Your task to perform on an android device: Open Chrome and go to settings Image 0: 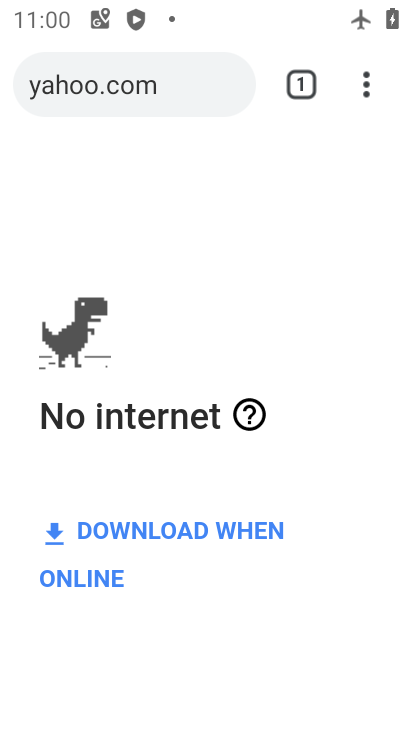
Step 0: press home button
Your task to perform on an android device: Open Chrome and go to settings Image 1: 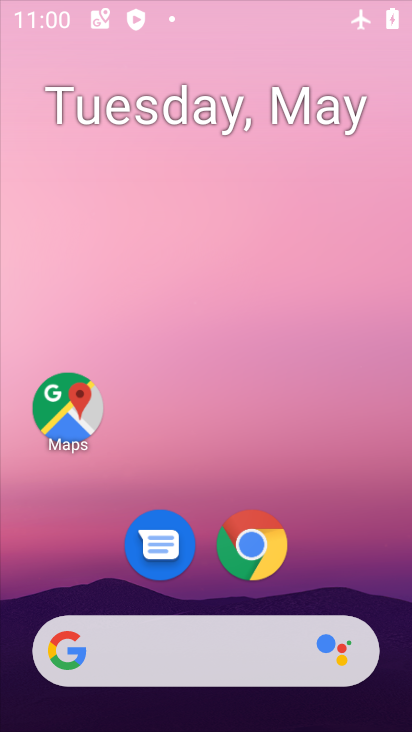
Step 1: drag from (181, 647) to (252, 132)
Your task to perform on an android device: Open Chrome and go to settings Image 2: 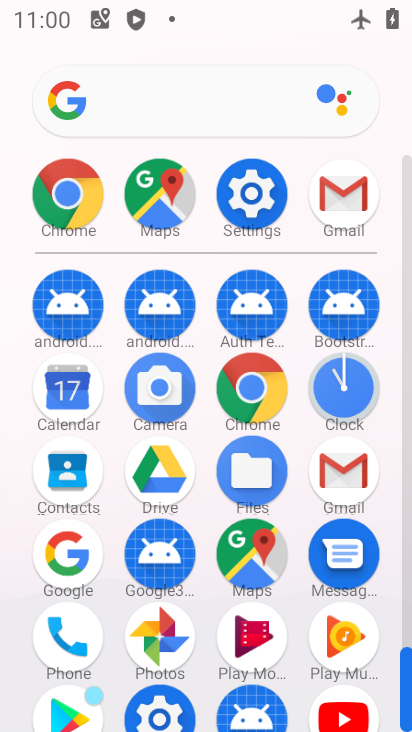
Step 2: click (77, 208)
Your task to perform on an android device: Open Chrome and go to settings Image 3: 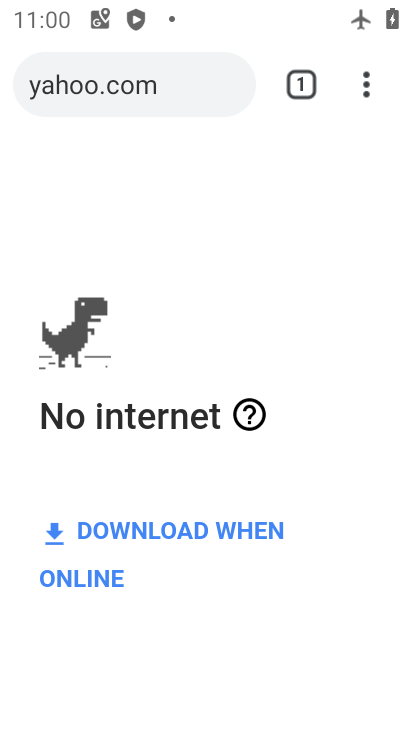
Step 3: click (349, 65)
Your task to perform on an android device: Open Chrome and go to settings Image 4: 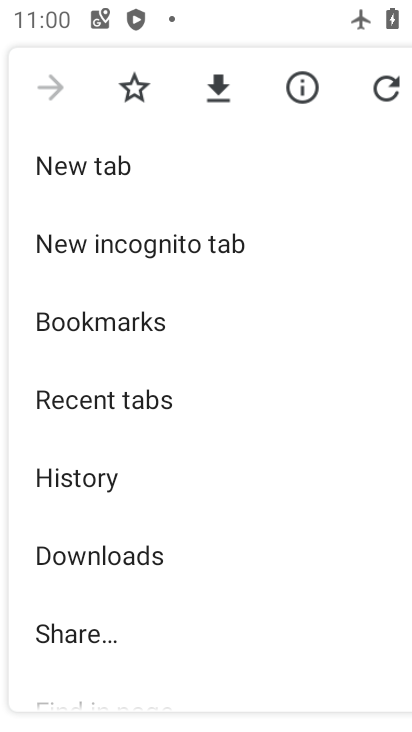
Step 4: drag from (117, 450) to (103, 136)
Your task to perform on an android device: Open Chrome and go to settings Image 5: 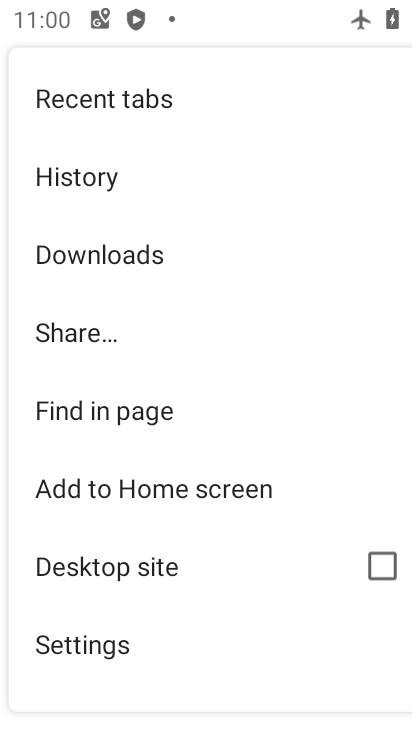
Step 5: click (139, 645)
Your task to perform on an android device: Open Chrome and go to settings Image 6: 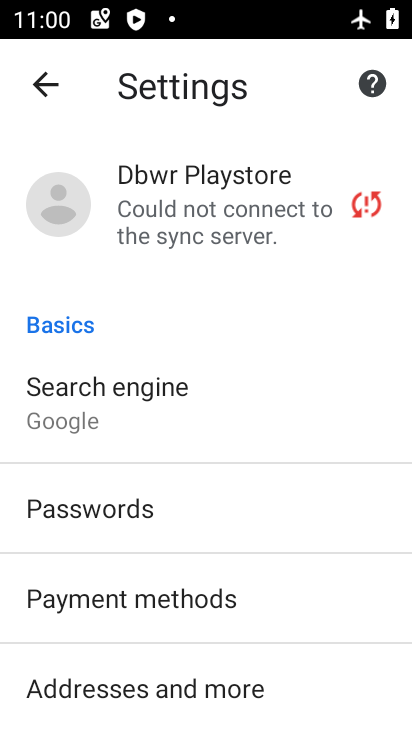
Step 6: task complete